Your task to perform on an android device: find snoozed emails in the gmail app Image 0: 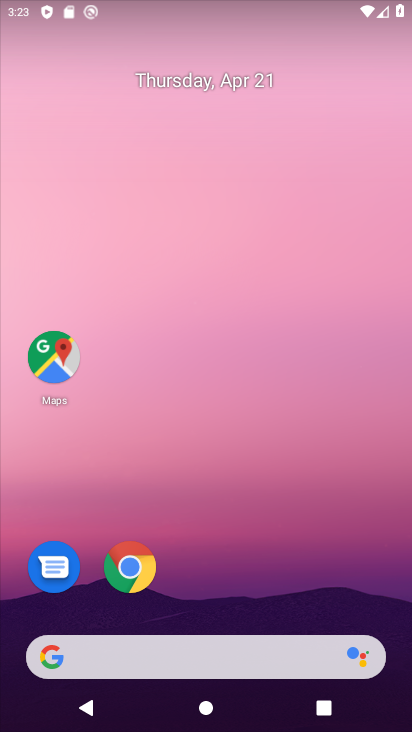
Step 0: drag from (230, 614) to (241, 52)
Your task to perform on an android device: find snoozed emails in the gmail app Image 1: 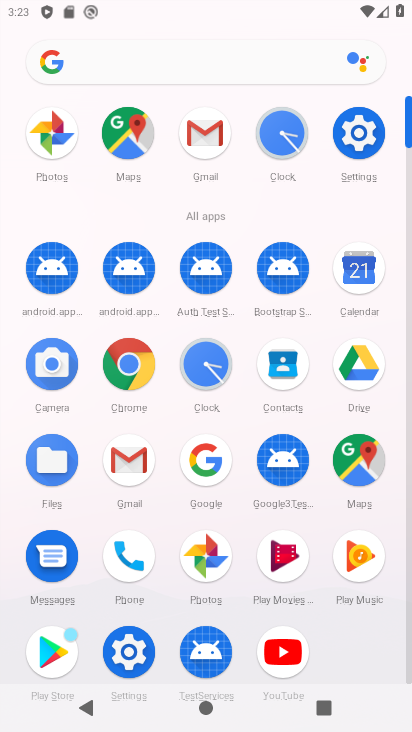
Step 1: click (205, 128)
Your task to perform on an android device: find snoozed emails in the gmail app Image 2: 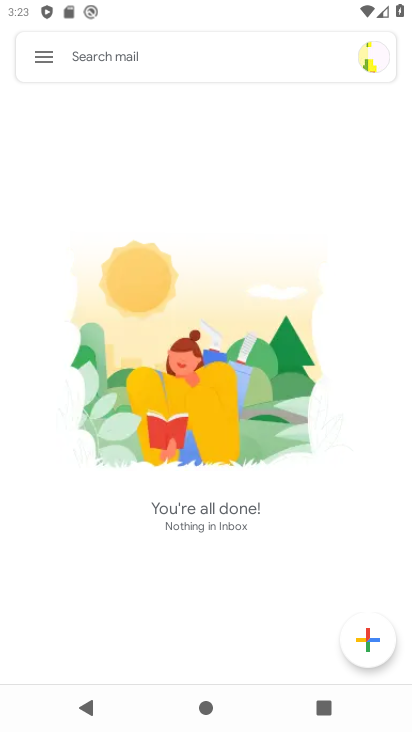
Step 2: click (44, 57)
Your task to perform on an android device: find snoozed emails in the gmail app Image 3: 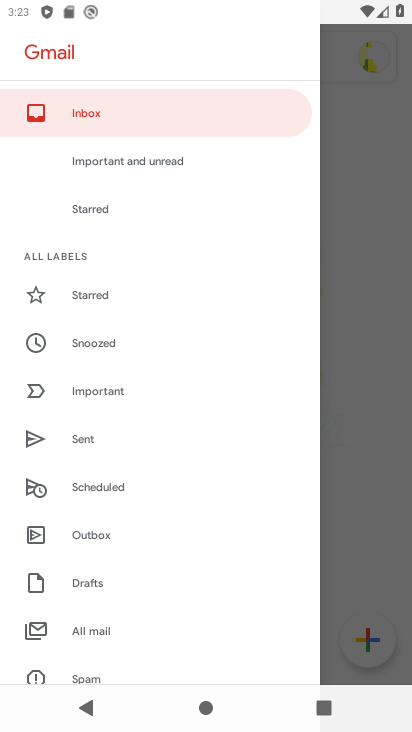
Step 3: click (118, 341)
Your task to perform on an android device: find snoozed emails in the gmail app Image 4: 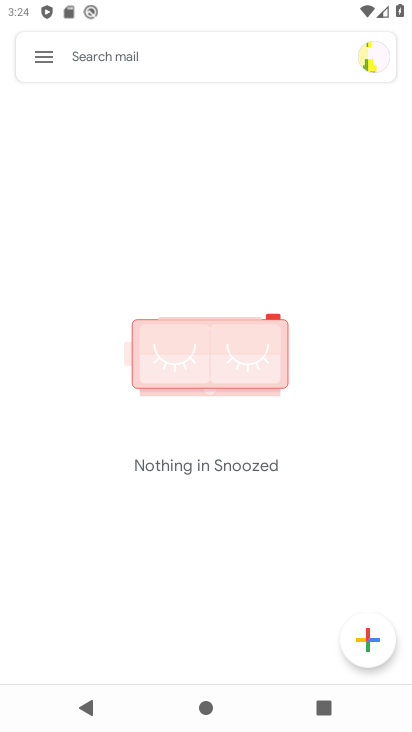
Step 4: task complete